Your task to perform on an android device: toggle javascript in the chrome app Image 0: 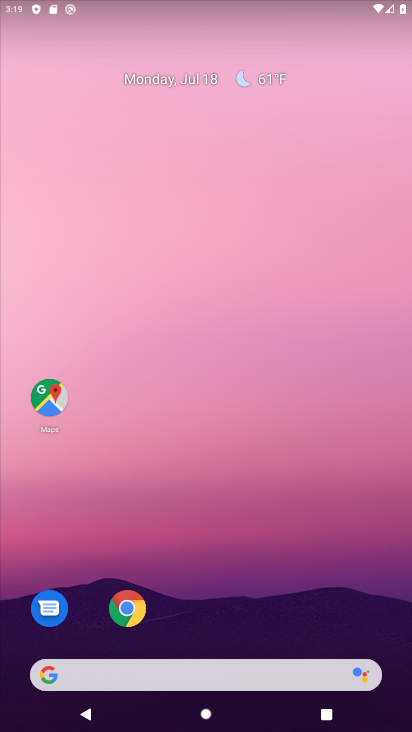
Step 0: drag from (303, 587) to (214, 12)
Your task to perform on an android device: toggle javascript in the chrome app Image 1: 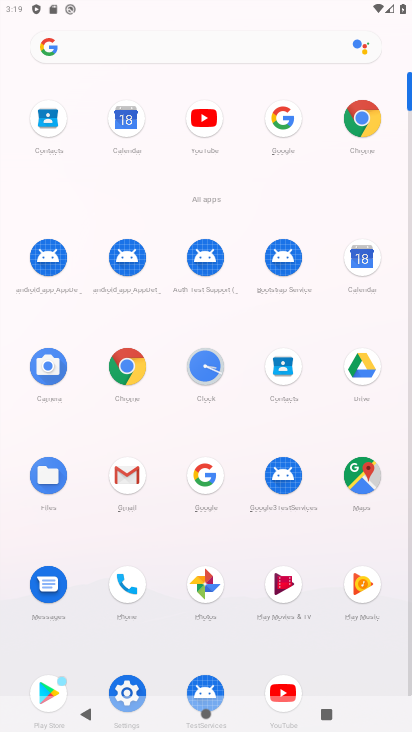
Step 1: click (367, 112)
Your task to perform on an android device: toggle javascript in the chrome app Image 2: 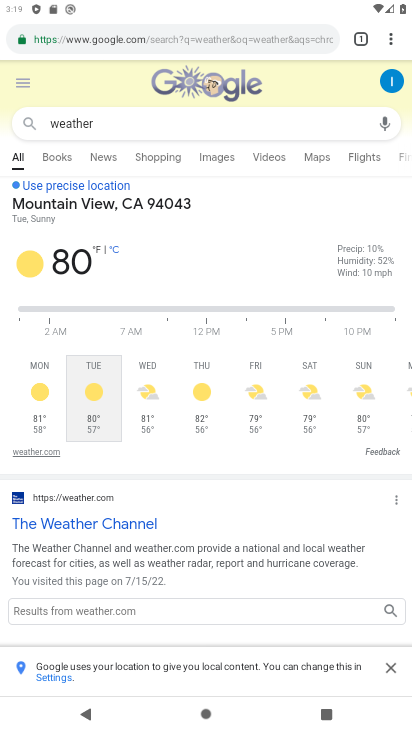
Step 2: drag from (395, 36) to (247, 440)
Your task to perform on an android device: toggle javascript in the chrome app Image 3: 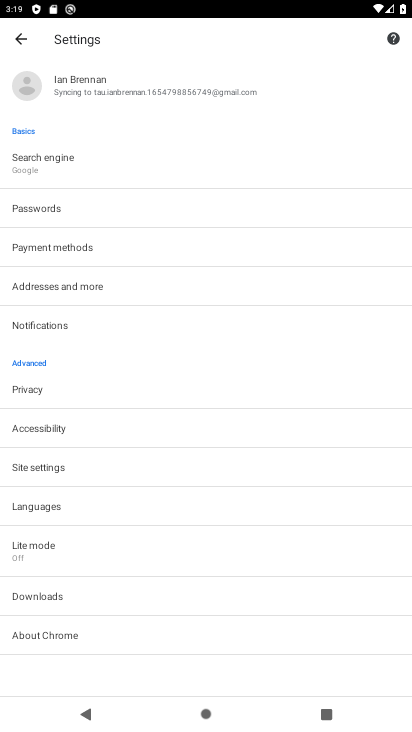
Step 3: click (50, 470)
Your task to perform on an android device: toggle javascript in the chrome app Image 4: 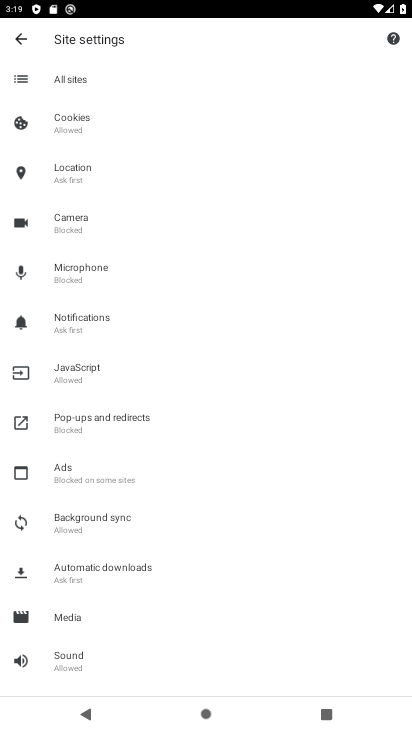
Step 4: click (96, 371)
Your task to perform on an android device: toggle javascript in the chrome app Image 5: 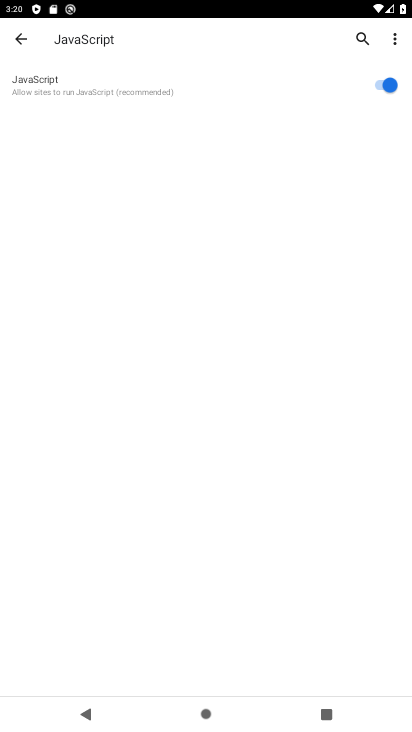
Step 5: click (374, 83)
Your task to perform on an android device: toggle javascript in the chrome app Image 6: 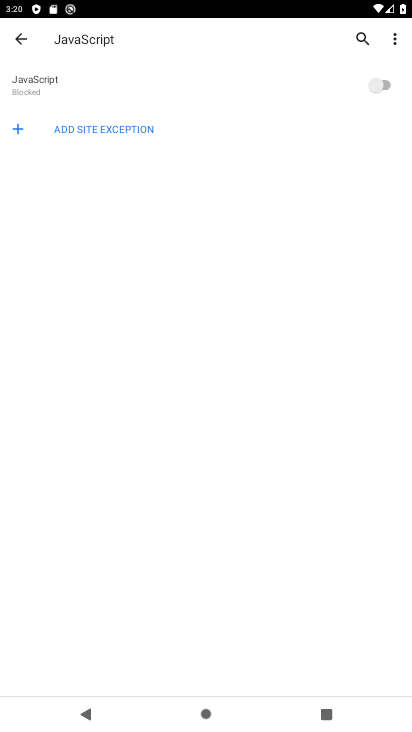
Step 6: task complete